Your task to perform on an android device: Go to settings Image 0: 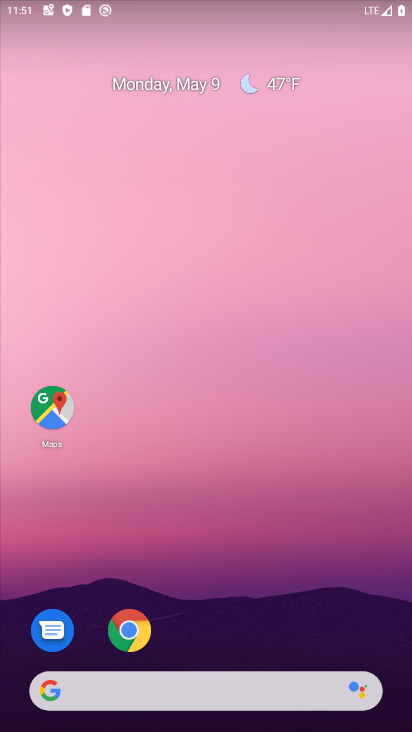
Step 0: press home button
Your task to perform on an android device: Go to settings Image 1: 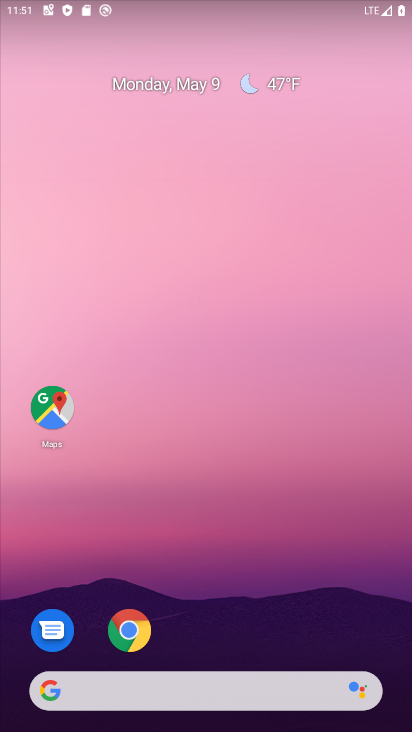
Step 1: drag from (165, 691) to (257, 130)
Your task to perform on an android device: Go to settings Image 2: 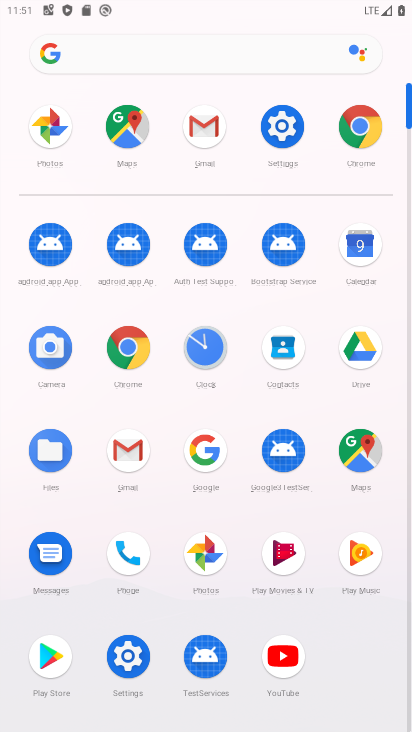
Step 2: click (283, 122)
Your task to perform on an android device: Go to settings Image 3: 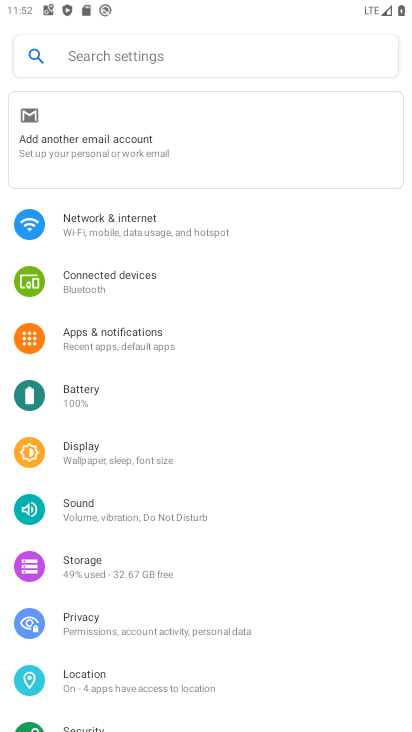
Step 3: task complete